Your task to perform on an android device: Do I have any events today? Image 0: 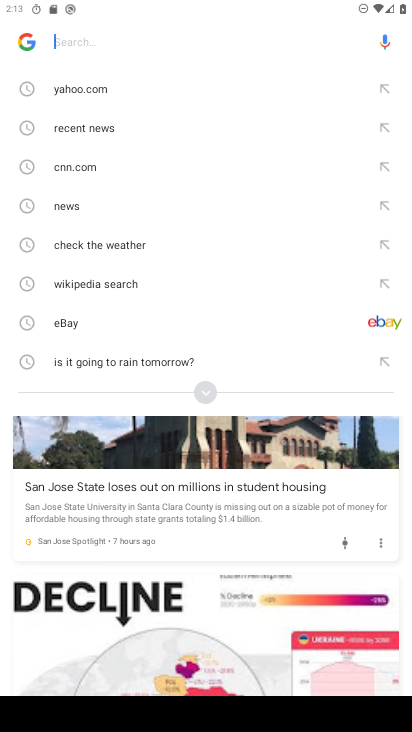
Step 0: press home button
Your task to perform on an android device: Do I have any events today? Image 1: 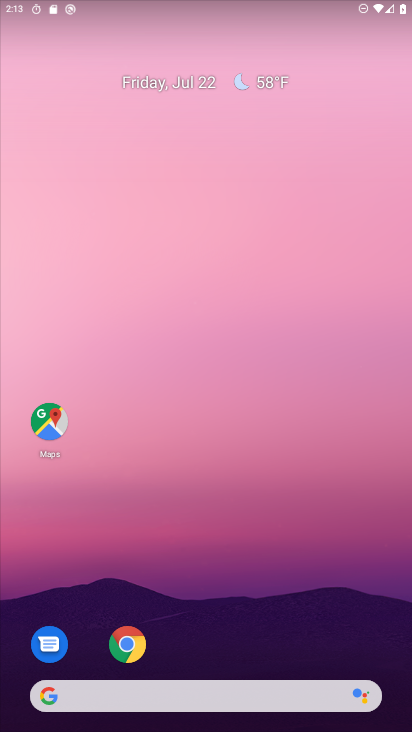
Step 1: drag from (305, 637) to (297, 125)
Your task to perform on an android device: Do I have any events today? Image 2: 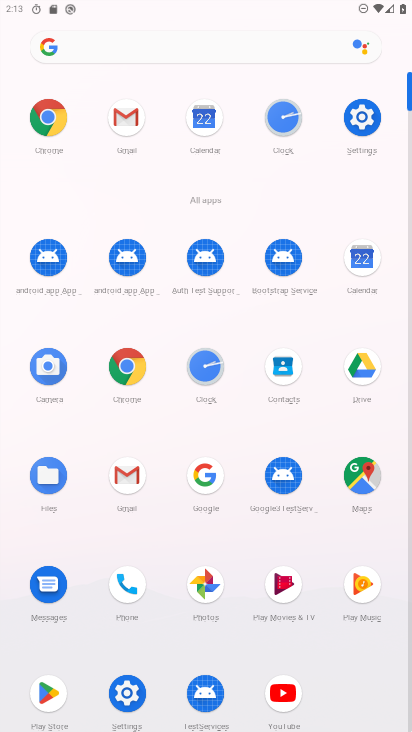
Step 2: click (364, 239)
Your task to perform on an android device: Do I have any events today? Image 3: 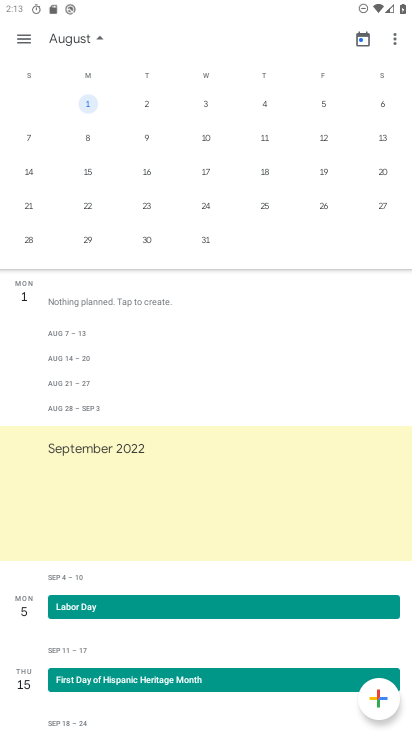
Step 3: drag from (48, 140) to (315, 139)
Your task to perform on an android device: Do I have any events today? Image 4: 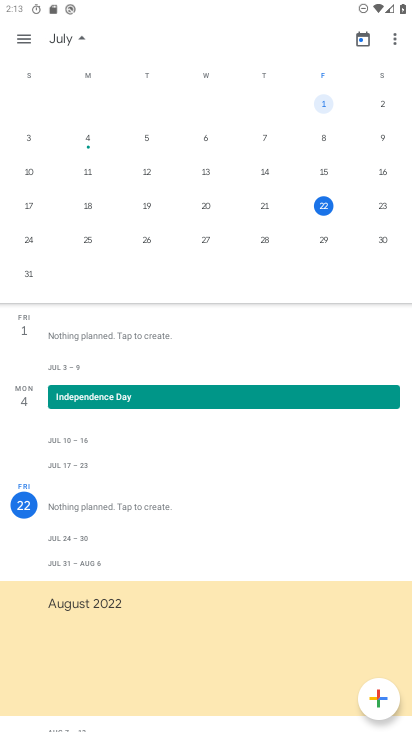
Step 4: click (370, 215)
Your task to perform on an android device: Do I have any events today? Image 5: 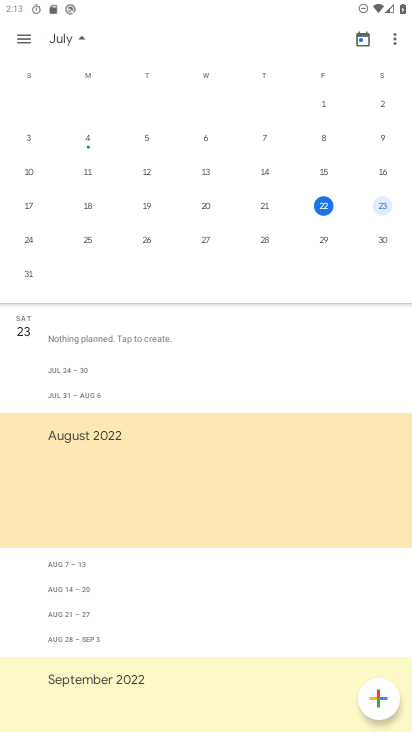
Step 5: click (330, 211)
Your task to perform on an android device: Do I have any events today? Image 6: 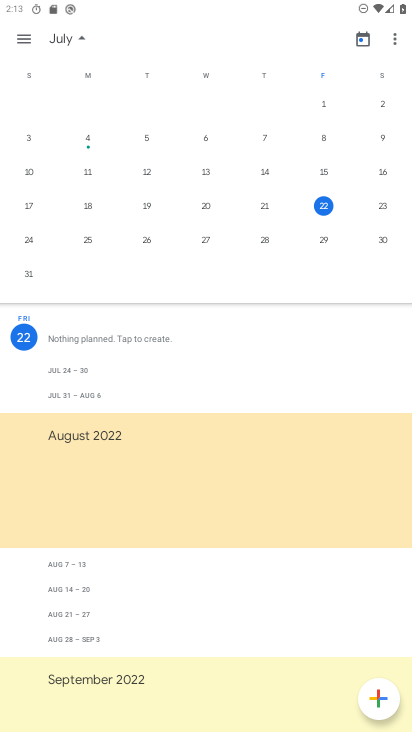
Step 6: task complete